Your task to perform on an android device: turn off notifications in google photos Image 0: 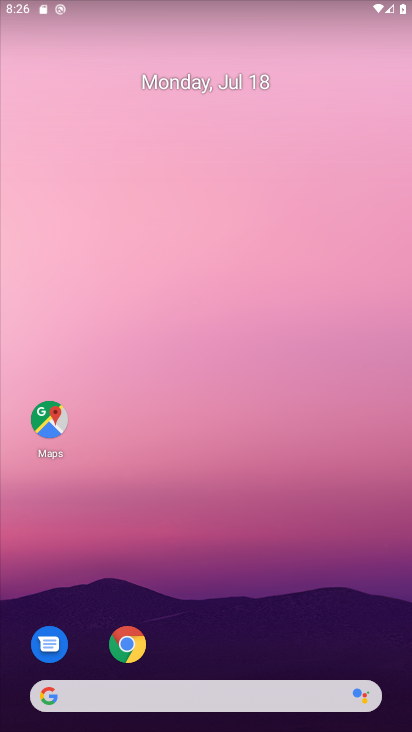
Step 0: drag from (269, 635) to (235, 78)
Your task to perform on an android device: turn off notifications in google photos Image 1: 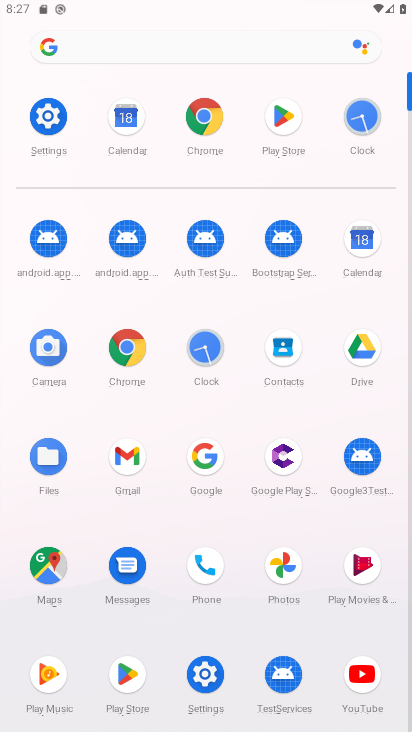
Step 1: click (271, 575)
Your task to perform on an android device: turn off notifications in google photos Image 2: 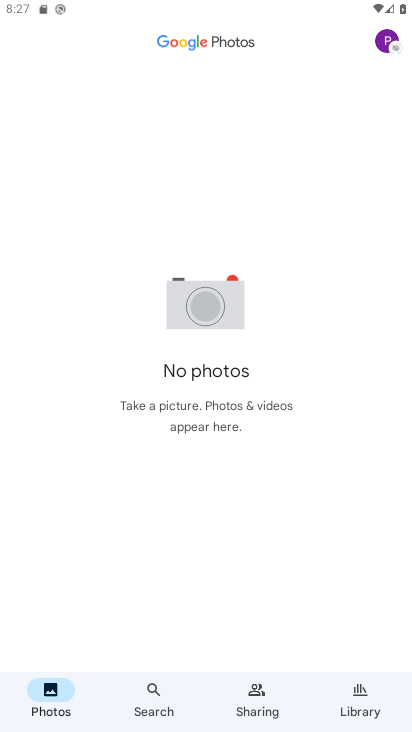
Step 2: task complete